Your task to perform on an android device: turn smart compose on in the gmail app Image 0: 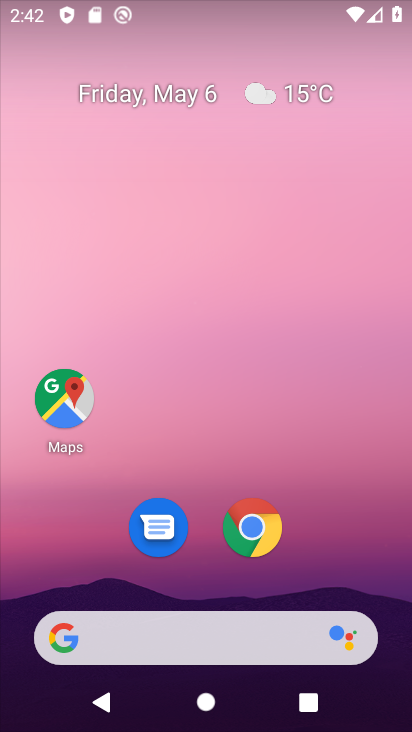
Step 0: drag from (164, 511) to (126, 215)
Your task to perform on an android device: turn smart compose on in the gmail app Image 1: 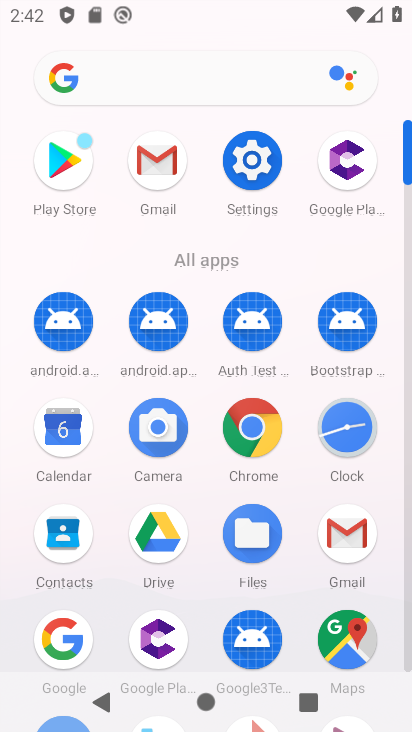
Step 1: click (339, 531)
Your task to perform on an android device: turn smart compose on in the gmail app Image 2: 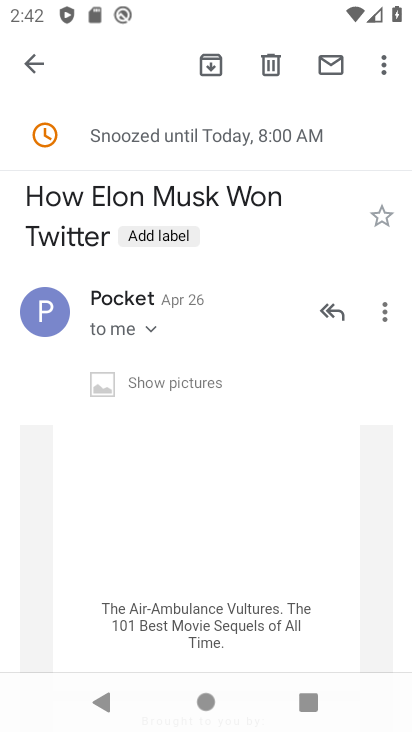
Step 2: click (33, 62)
Your task to perform on an android device: turn smart compose on in the gmail app Image 3: 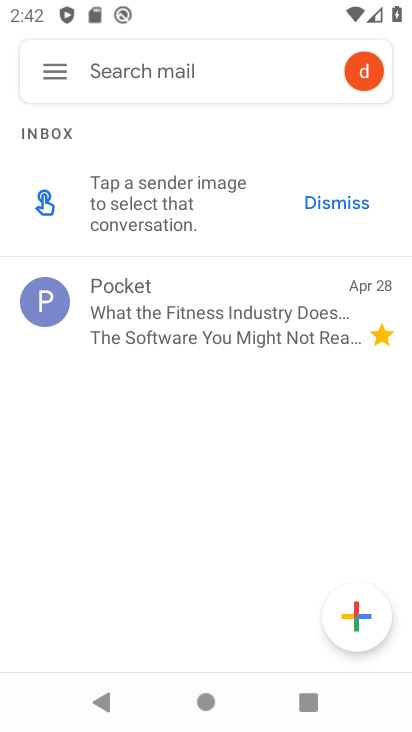
Step 3: click (53, 71)
Your task to perform on an android device: turn smart compose on in the gmail app Image 4: 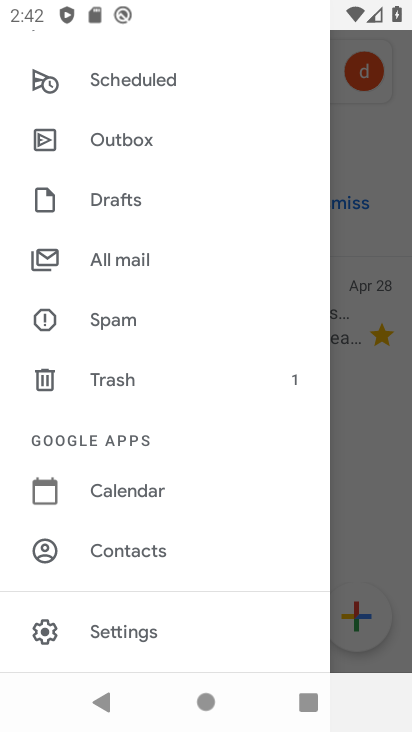
Step 4: click (115, 628)
Your task to perform on an android device: turn smart compose on in the gmail app Image 5: 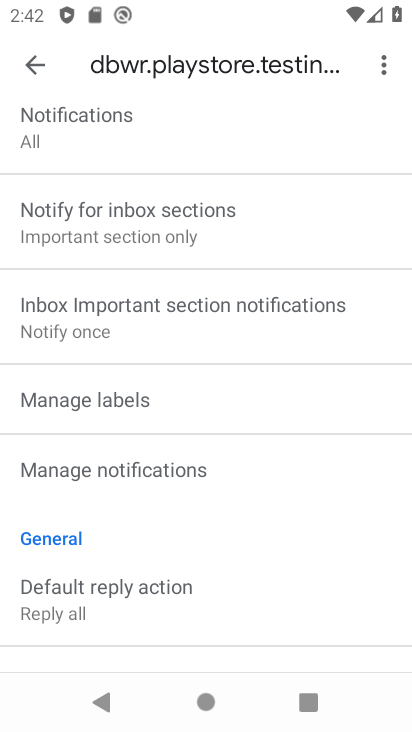
Step 5: task complete